Your task to perform on an android device: Open calendar and show me the second week of next month Image 0: 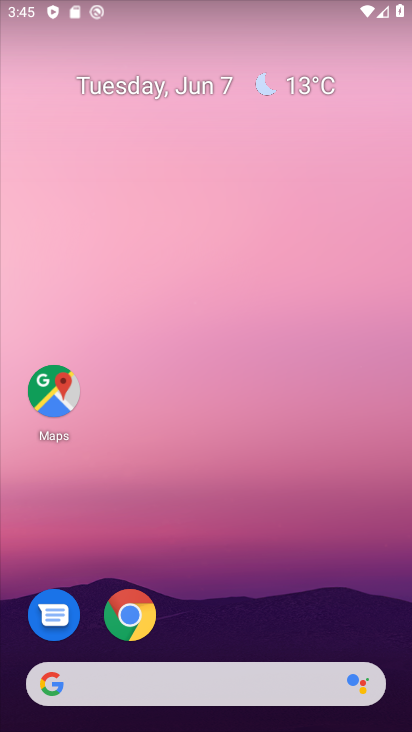
Step 0: drag from (194, 724) to (196, 201)
Your task to perform on an android device: Open calendar and show me the second week of next month Image 1: 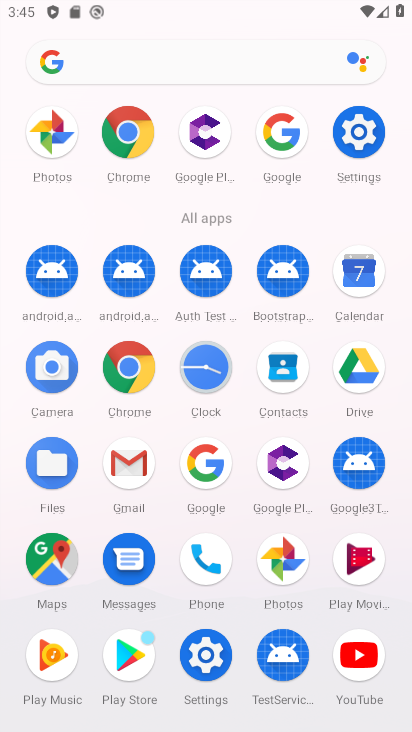
Step 1: click (357, 274)
Your task to perform on an android device: Open calendar and show me the second week of next month Image 2: 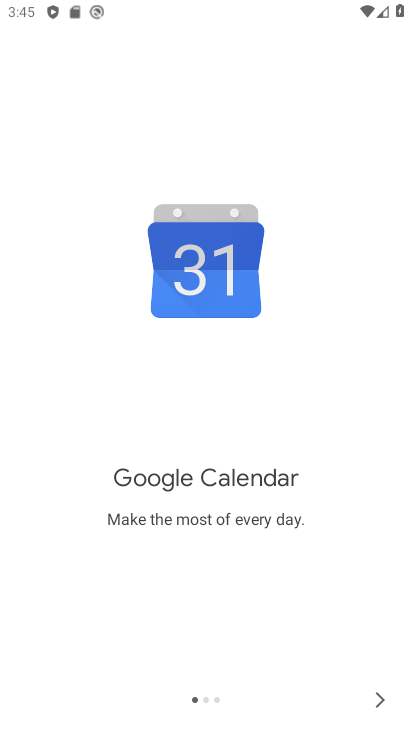
Step 2: click (371, 701)
Your task to perform on an android device: Open calendar and show me the second week of next month Image 3: 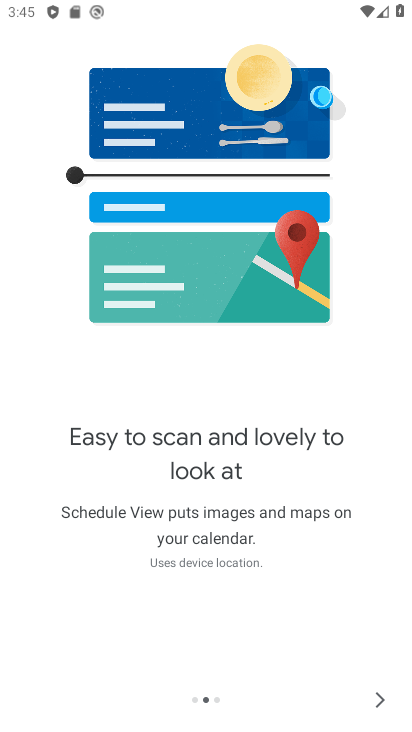
Step 3: click (377, 694)
Your task to perform on an android device: Open calendar and show me the second week of next month Image 4: 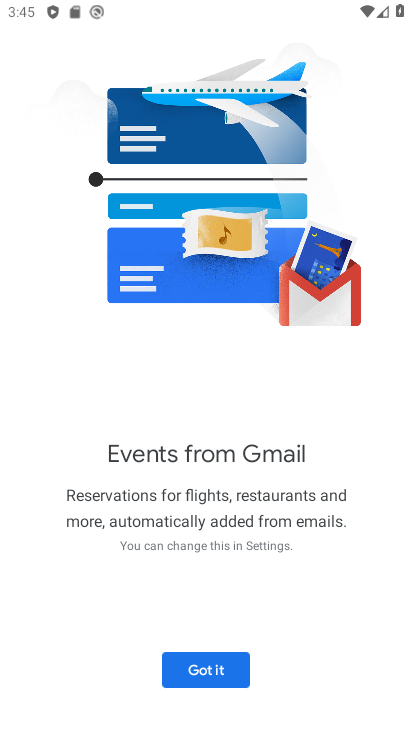
Step 4: click (224, 668)
Your task to perform on an android device: Open calendar and show me the second week of next month Image 5: 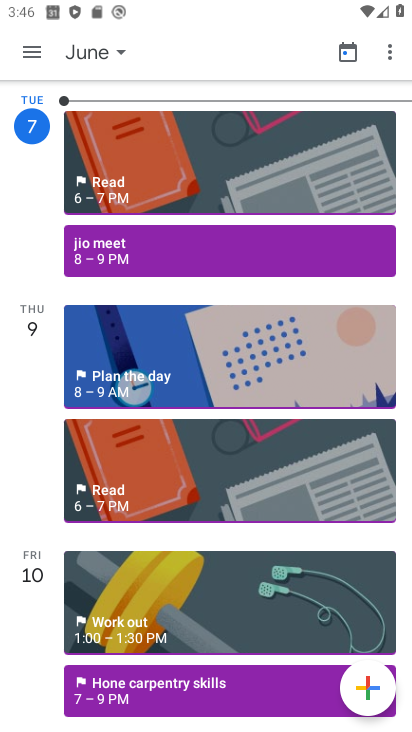
Step 5: click (119, 48)
Your task to perform on an android device: Open calendar and show me the second week of next month Image 6: 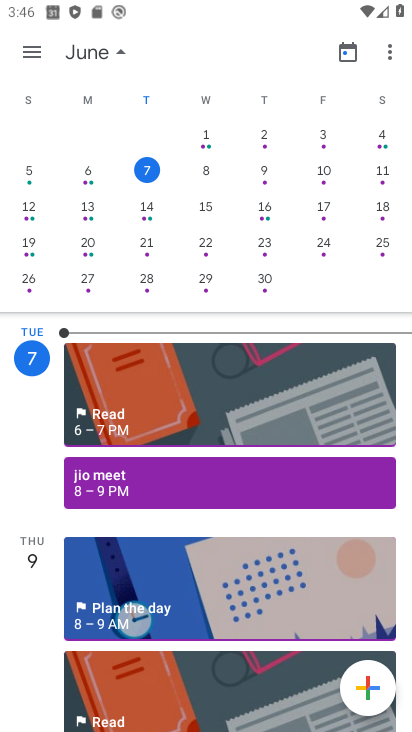
Step 6: drag from (312, 197) to (7, 226)
Your task to perform on an android device: Open calendar and show me the second week of next month Image 7: 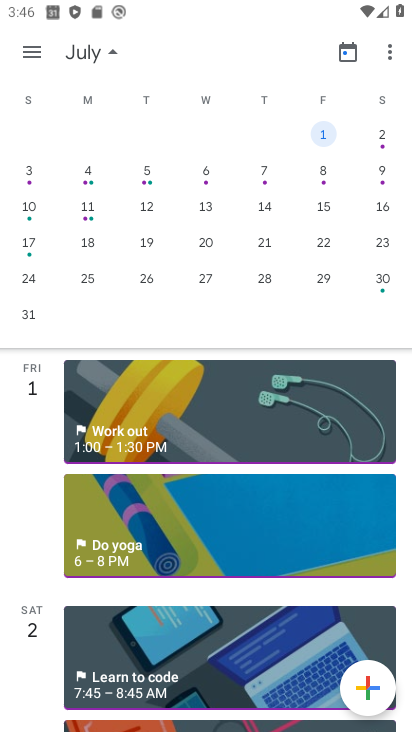
Step 7: click (89, 203)
Your task to perform on an android device: Open calendar and show me the second week of next month Image 8: 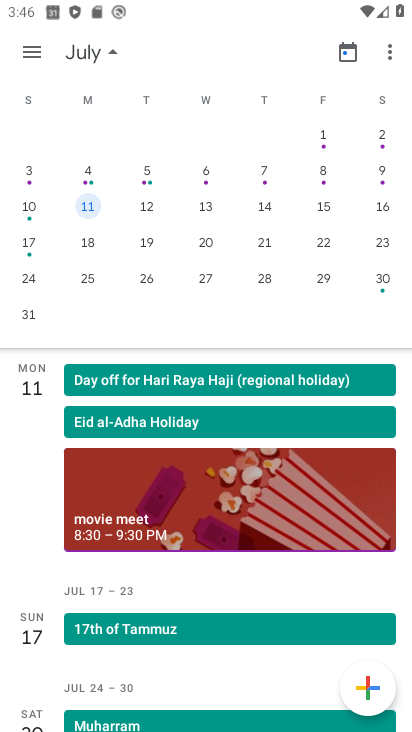
Step 8: click (88, 204)
Your task to perform on an android device: Open calendar and show me the second week of next month Image 9: 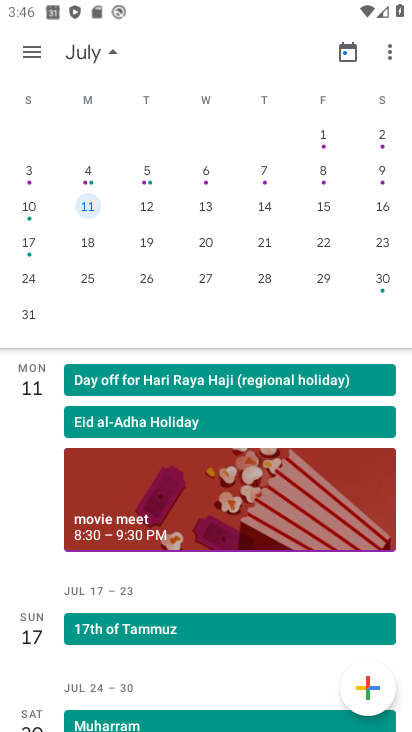
Step 9: click (29, 52)
Your task to perform on an android device: Open calendar and show me the second week of next month Image 10: 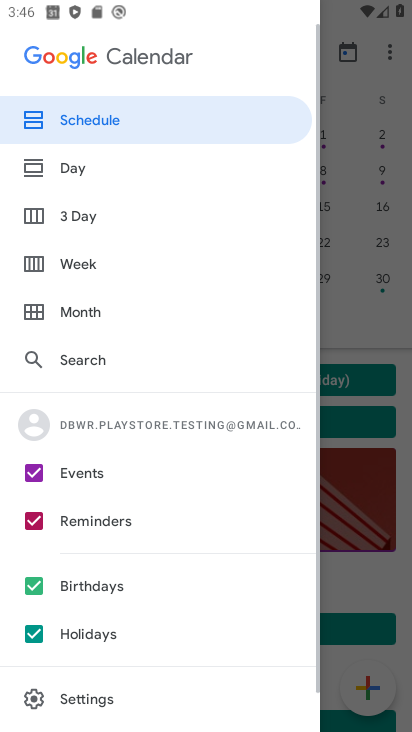
Step 10: click (84, 260)
Your task to perform on an android device: Open calendar and show me the second week of next month Image 11: 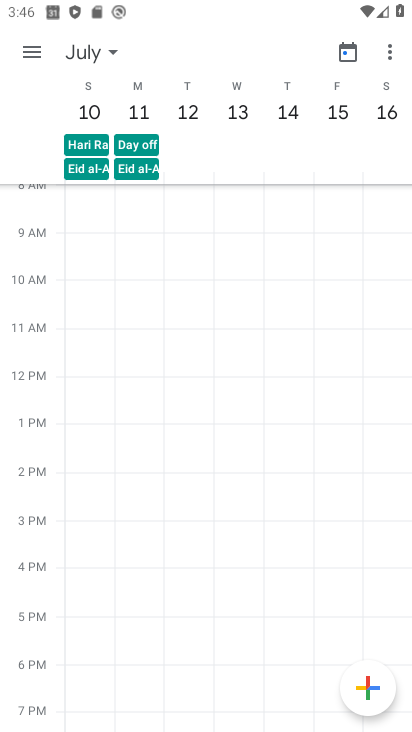
Step 11: task complete